Your task to perform on an android device: Open notification settings Image 0: 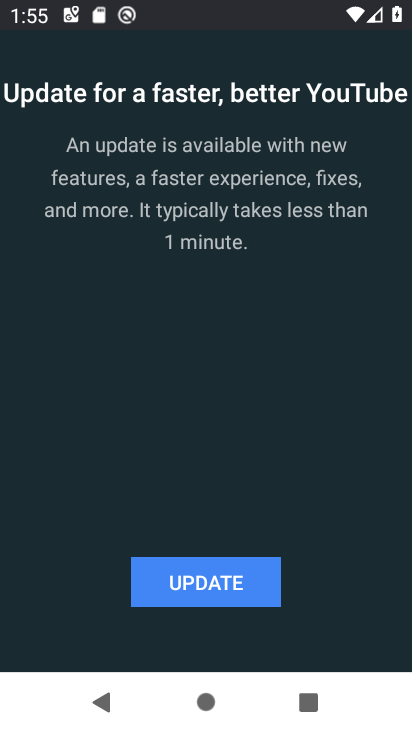
Step 0: press home button
Your task to perform on an android device: Open notification settings Image 1: 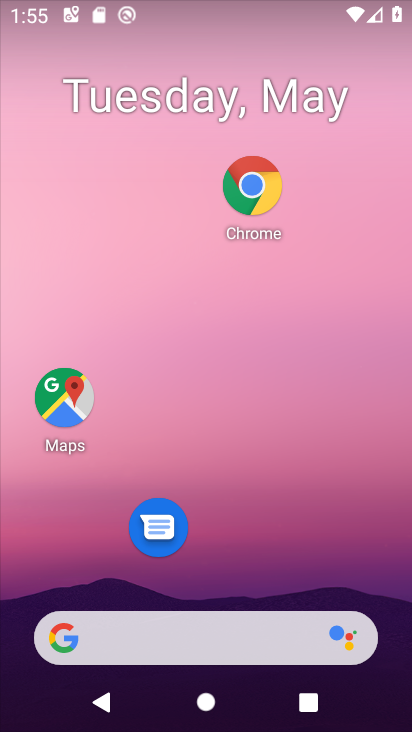
Step 1: drag from (262, 513) to (132, 35)
Your task to perform on an android device: Open notification settings Image 2: 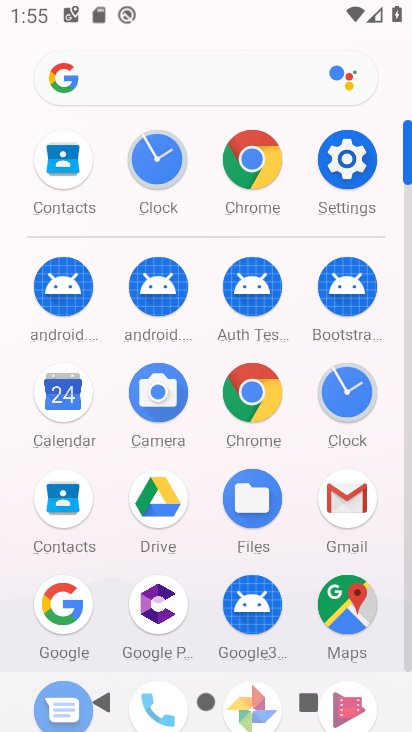
Step 2: click (340, 151)
Your task to perform on an android device: Open notification settings Image 3: 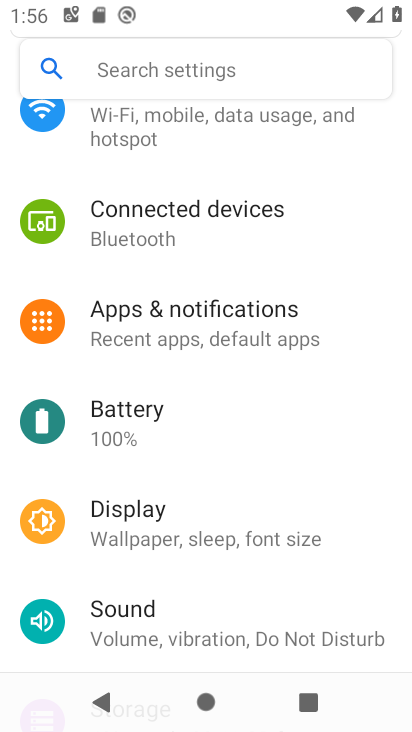
Step 3: click (224, 273)
Your task to perform on an android device: Open notification settings Image 4: 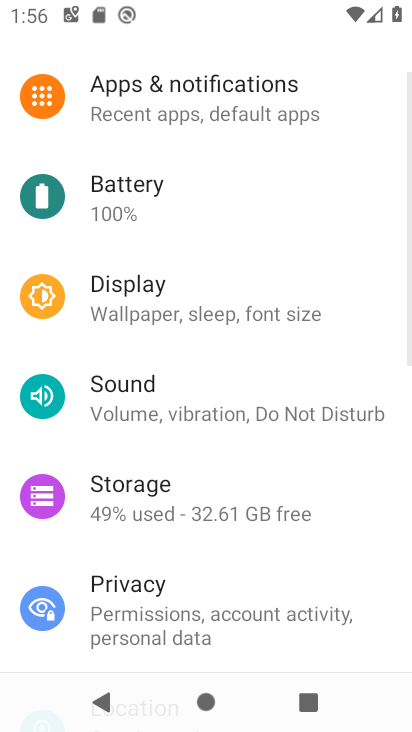
Step 4: click (309, 232)
Your task to perform on an android device: Open notification settings Image 5: 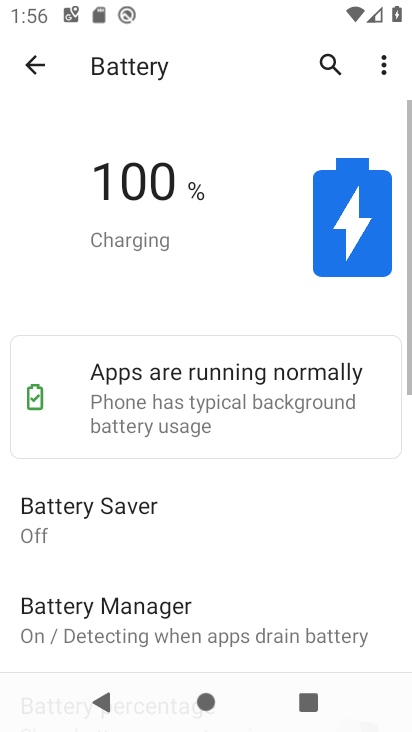
Step 5: drag from (309, 232) to (313, 428)
Your task to perform on an android device: Open notification settings Image 6: 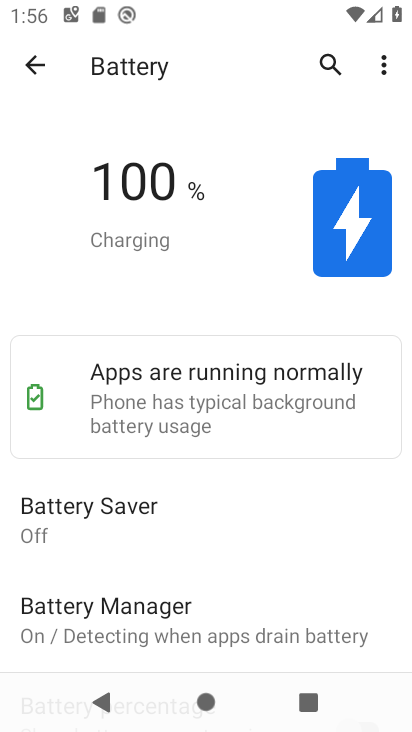
Step 6: click (37, 58)
Your task to perform on an android device: Open notification settings Image 7: 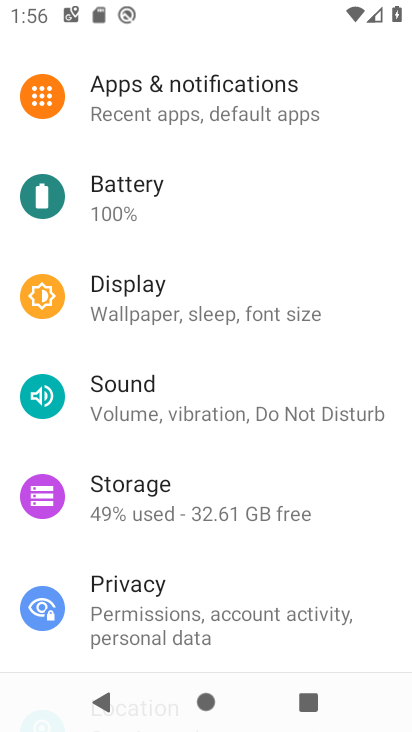
Step 7: drag from (155, 431) to (155, 178)
Your task to perform on an android device: Open notification settings Image 8: 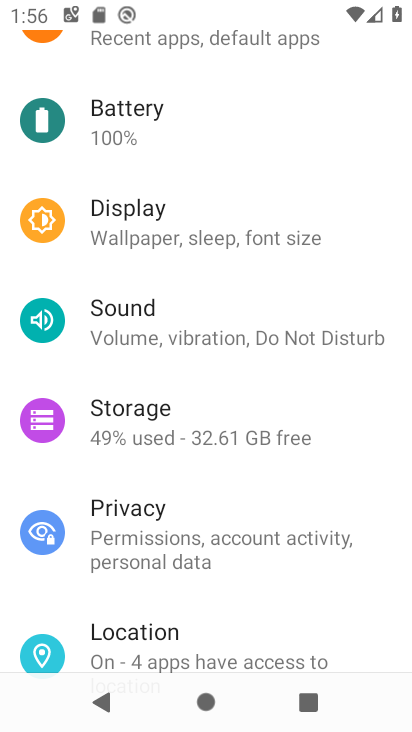
Step 8: drag from (234, 180) to (265, 560)
Your task to perform on an android device: Open notification settings Image 9: 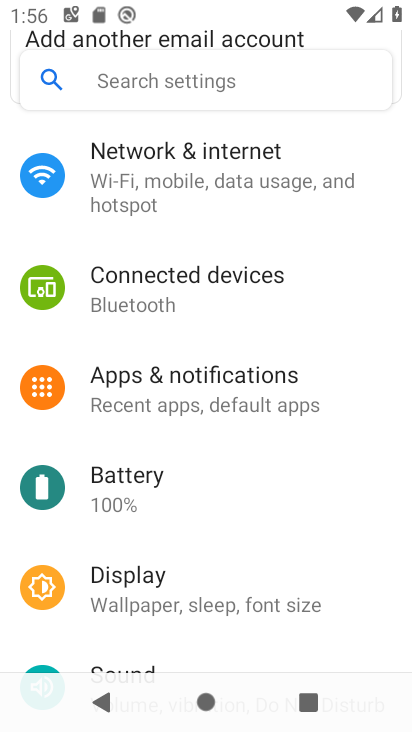
Step 9: click (184, 376)
Your task to perform on an android device: Open notification settings Image 10: 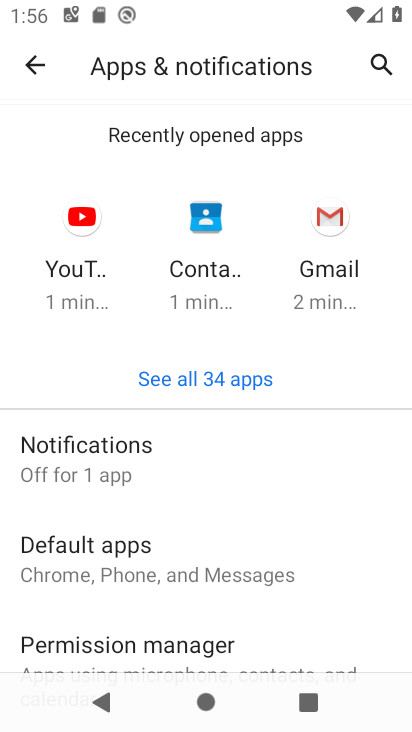
Step 10: task complete